Your task to perform on an android device: find photos in the google photos app Image 0: 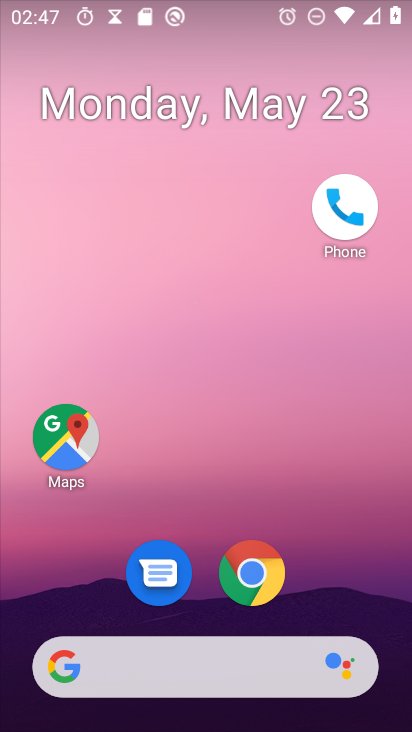
Step 0: press home button
Your task to perform on an android device: find photos in the google photos app Image 1: 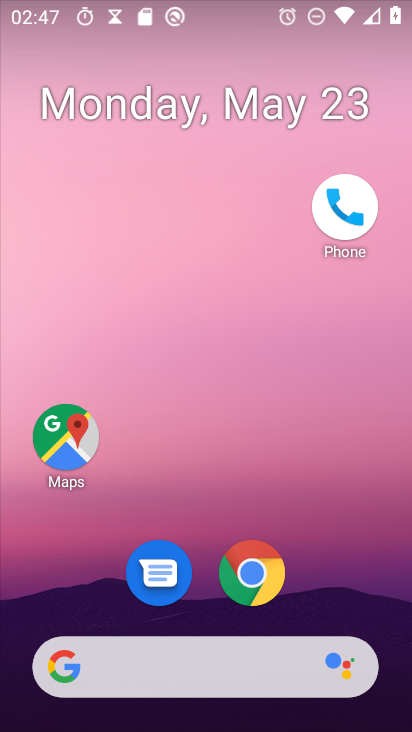
Step 1: drag from (216, 667) to (319, 236)
Your task to perform on an android device: find photos in the google photos app Image 2: 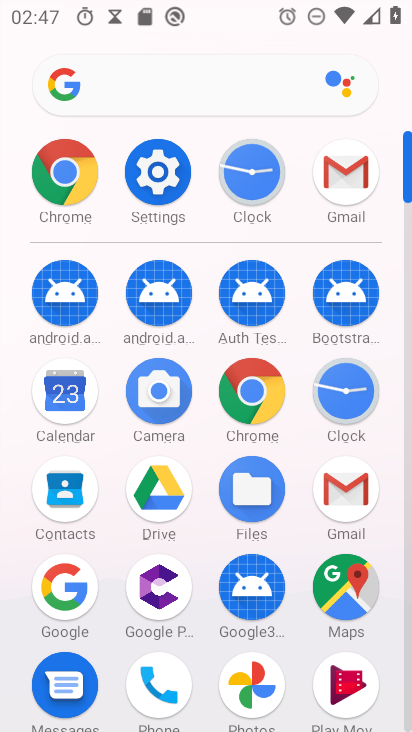
Step 2: click (248, 671)
Your task to perform on an android device: find photos in the google photos app Image 3: 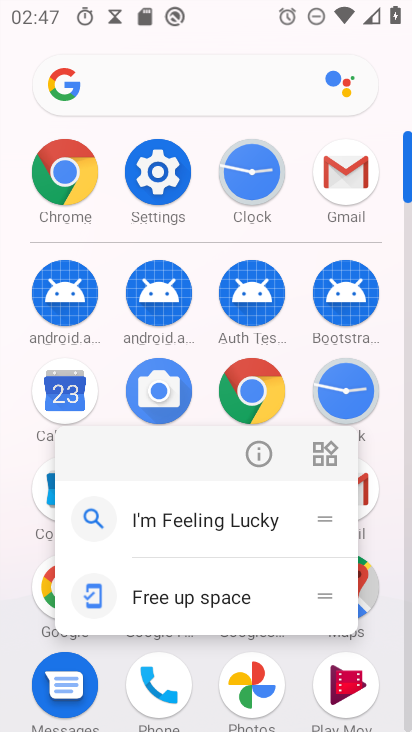
Step 3: click (243, 680)
Your task to perform on an android device: find photos in the google photos app Image 4: 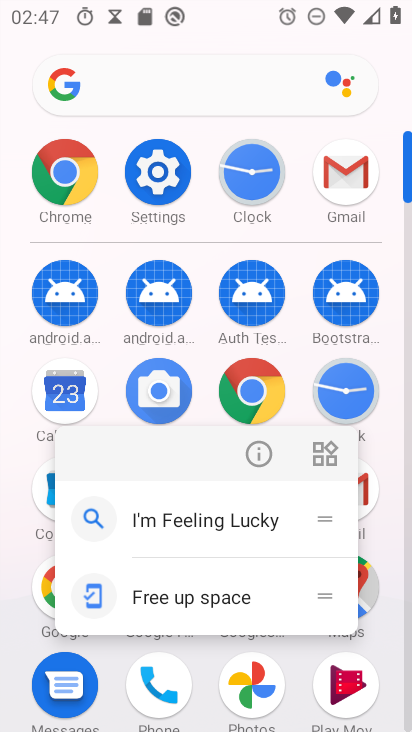
Step 4: click (245, 683)
Your task to perform on an android device: find photos in the google photos app Image 5: 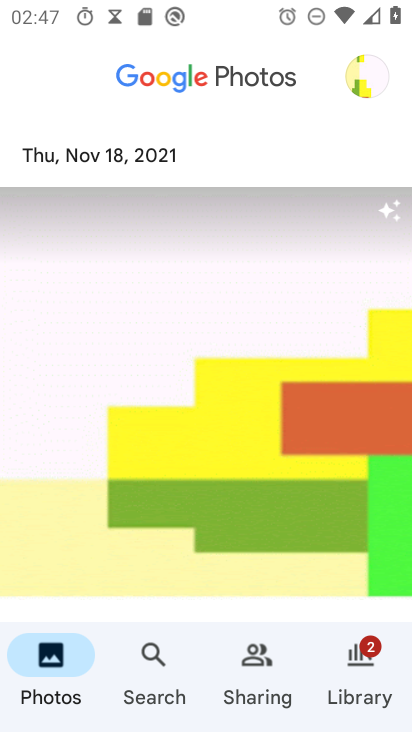
Step 5: task complete